Your task to perform on an android device: Check the weather Image 0: 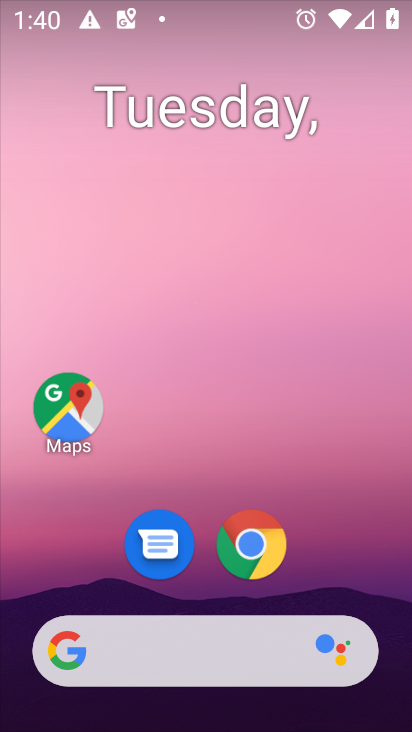
Step 0: drag from (339, 516) to (263, 94)
Your task to perform on an android device: Check the weather Image 1: 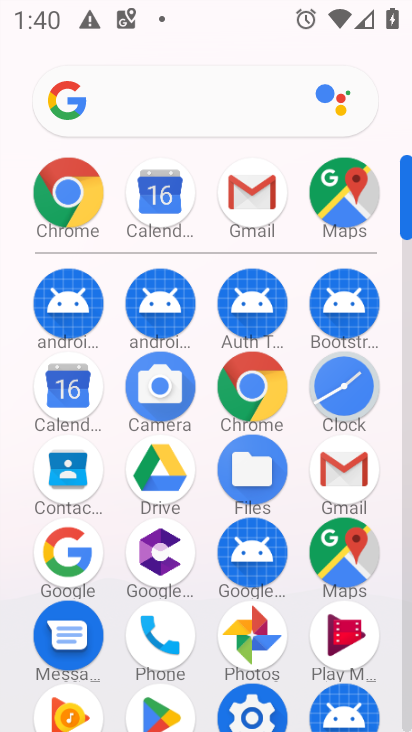
Step 1: click (242, 387)
Your task to perform on an android device: Check the weather Image 2: 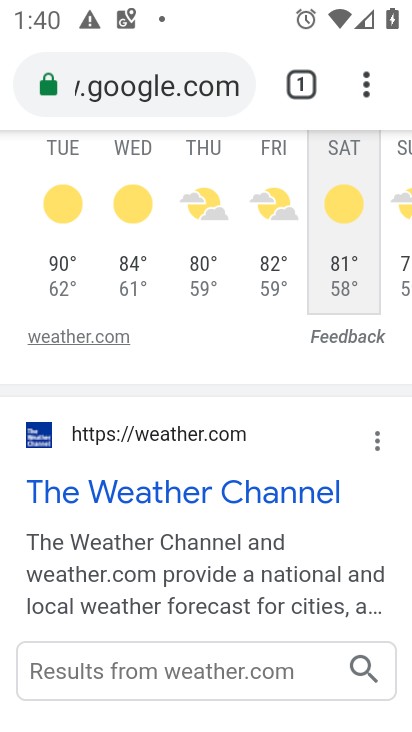
Step 2: drag from (88, 256) to (407, 288)
Your task to perform on an android device: Check the weather Image 3: 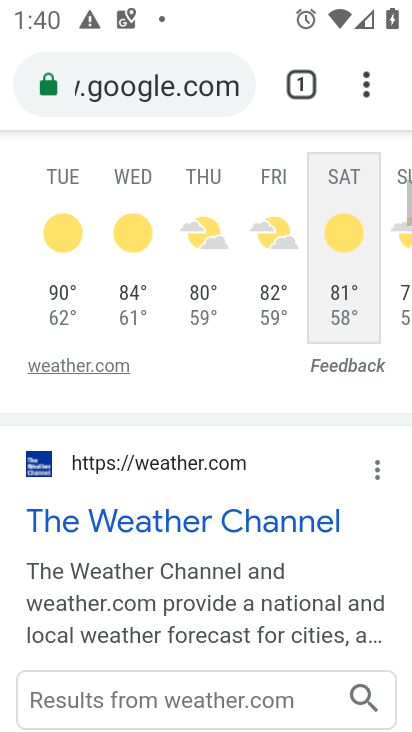
Step 3: drag from (202, 216) to (197, 518)
Your task to perform on an android device: Check the weather Image 4: 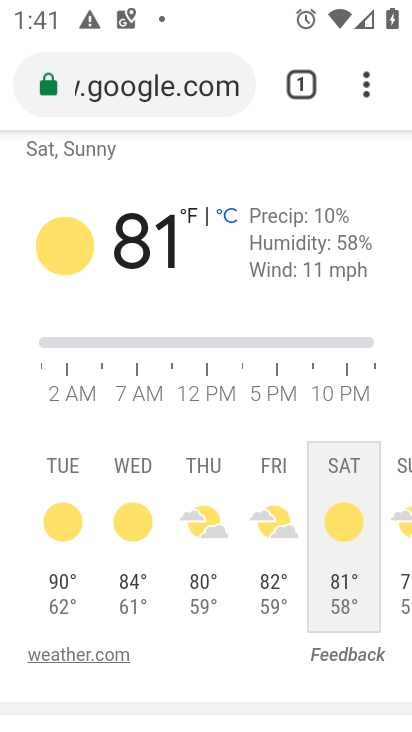
Step 4: click (56, 504)
Your task to perform on an android device: Check the weather Image 5: 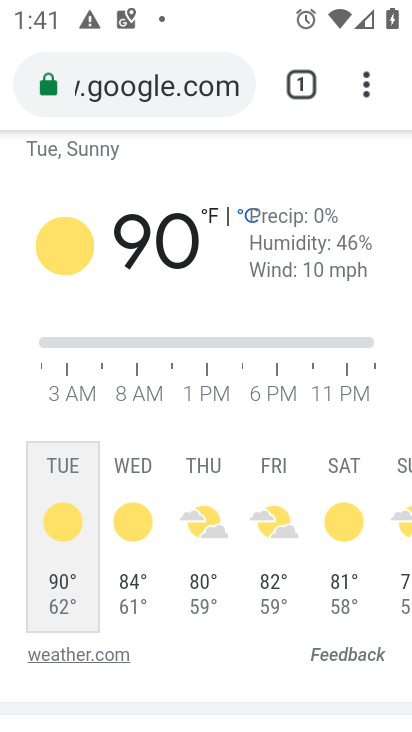
Step 5: task complete